Your task to perform on an android device: Add bose soundsport free to the cart on target Image 0: 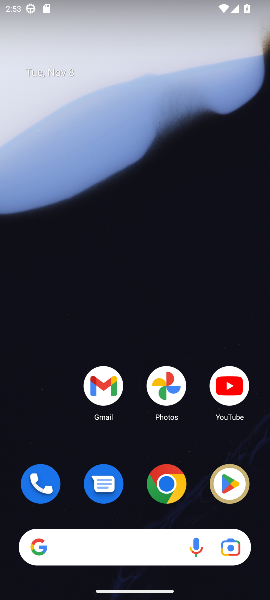
Step 0: click (160, 498)
Your task to perform on an android device: Add bose soundsport free to the cart on target Image 1: 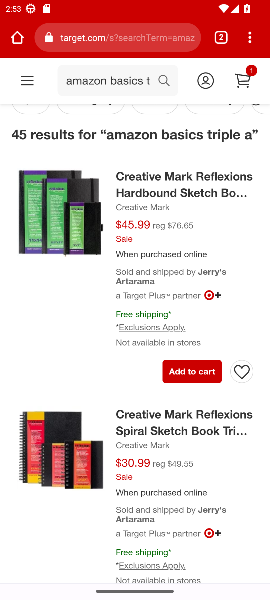
Step 1: click (117, 85)
Your task to perform on an android device: Add bose soundsport free to the cart on target Image 2: 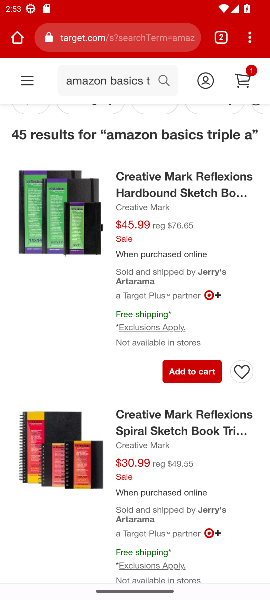
Step 2: click (115, 76)
Your task to perform on an android device: Add bose soundsport free to the cart on target Image 3: 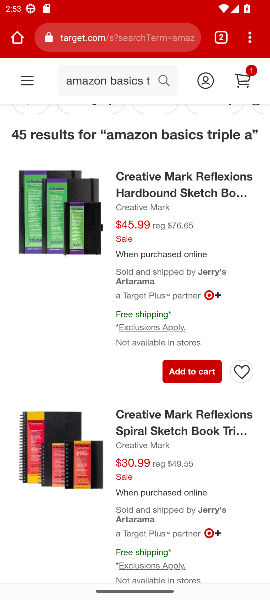
Step 3: click (115, 76)
Your task to perform on an android device: Add bose soundsport free to the cart on target Image 4: 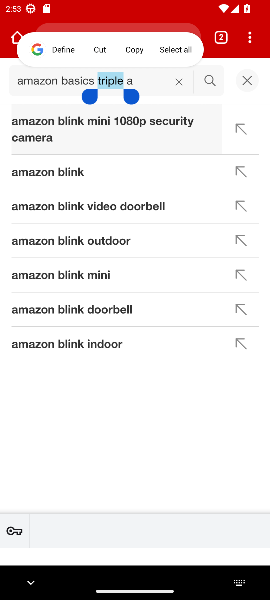
Step 4: click (178, 82)
Your task to perform on an android device: Add bose soundsport free to the cart on target Image 5: 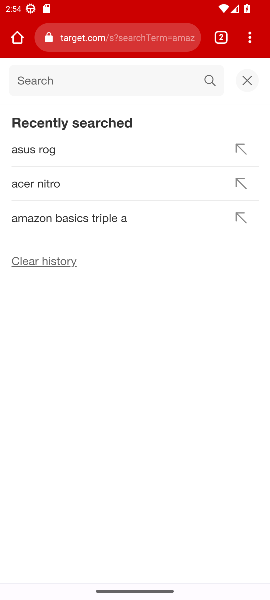
Step 5: click (57, 81)
Your task to perform on an android device: Add bose soundsport free to the cart on target Image 6: 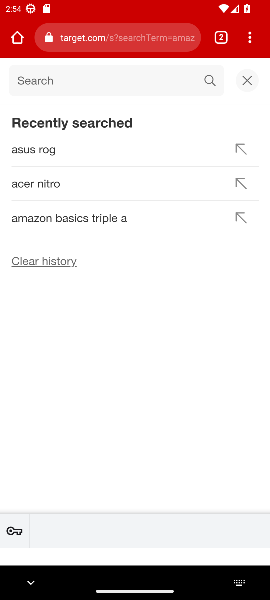
Step 6: type "bose soundsport free "
Your task to perform on an android device: Add bose soundsport free to the cart on target Image 7: 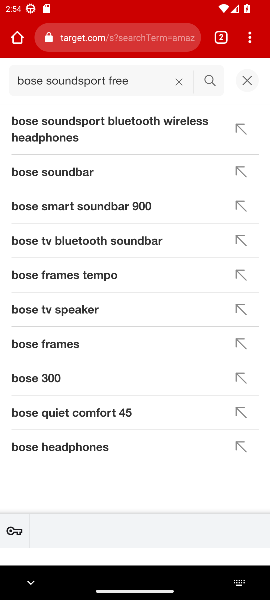
Step 7: click (204, 77)
Your task to perform on an android device: Add bose soundsport free to the cart on target Image 8: 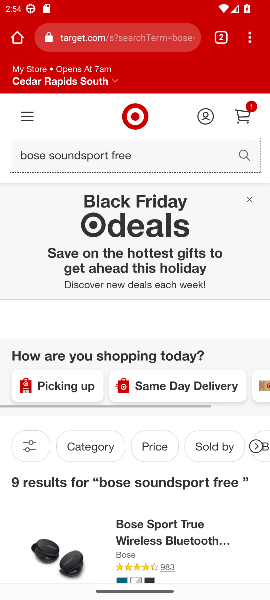
Step 8: task complete